Your task to perform on an android device: turn vacation reply on in the gmail app Image 0: 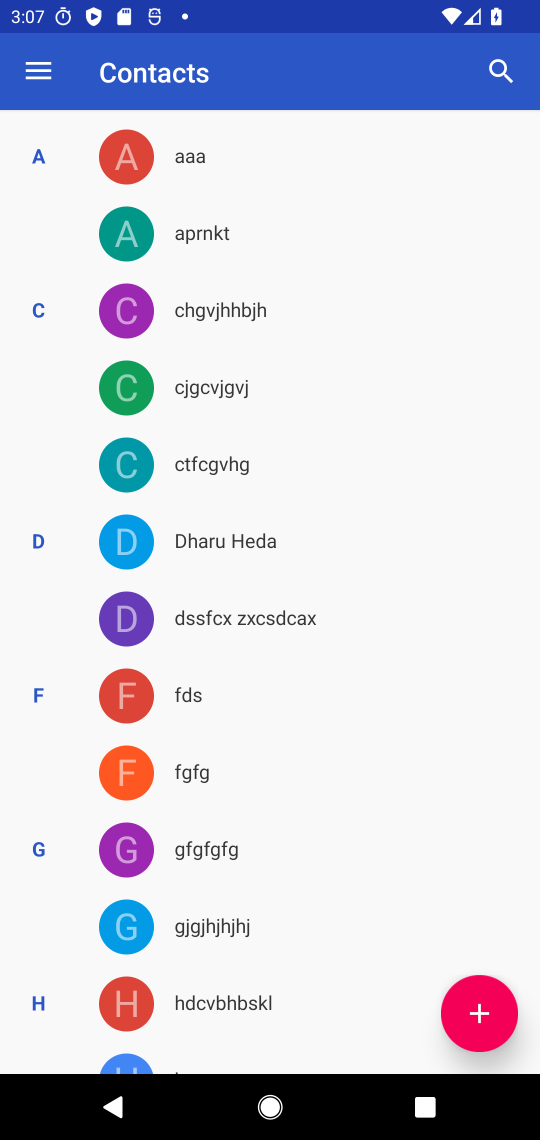
Step 0: press home button
Your task to perform on an android device: turn vacation reply on in the gmail app Image 1: 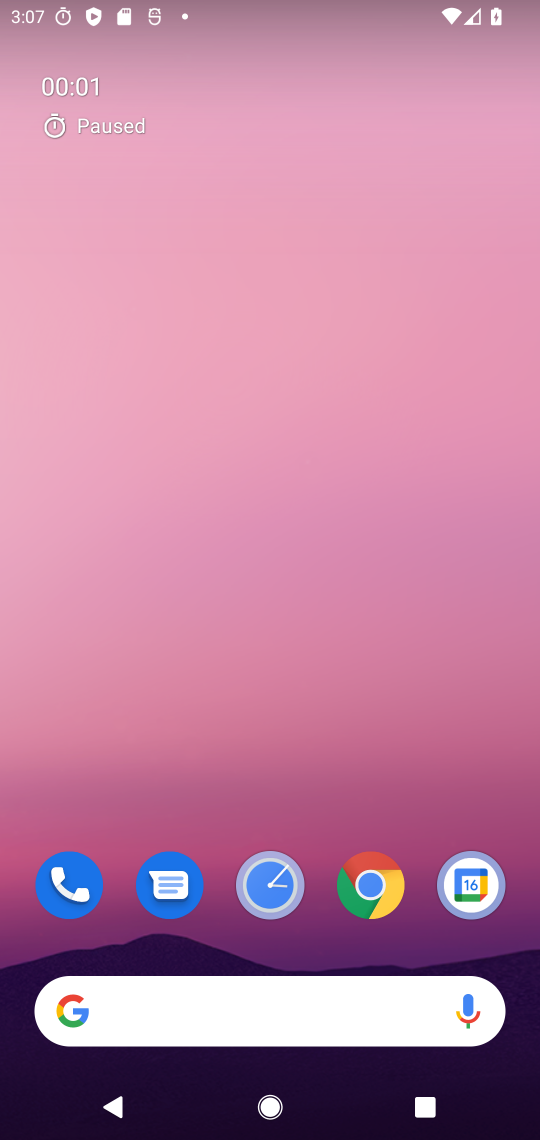
Step 1: drag from (291, 957) to (253, 18)
Your task to perform on an android device: turn vacation reply on in the gmail app Image 2: 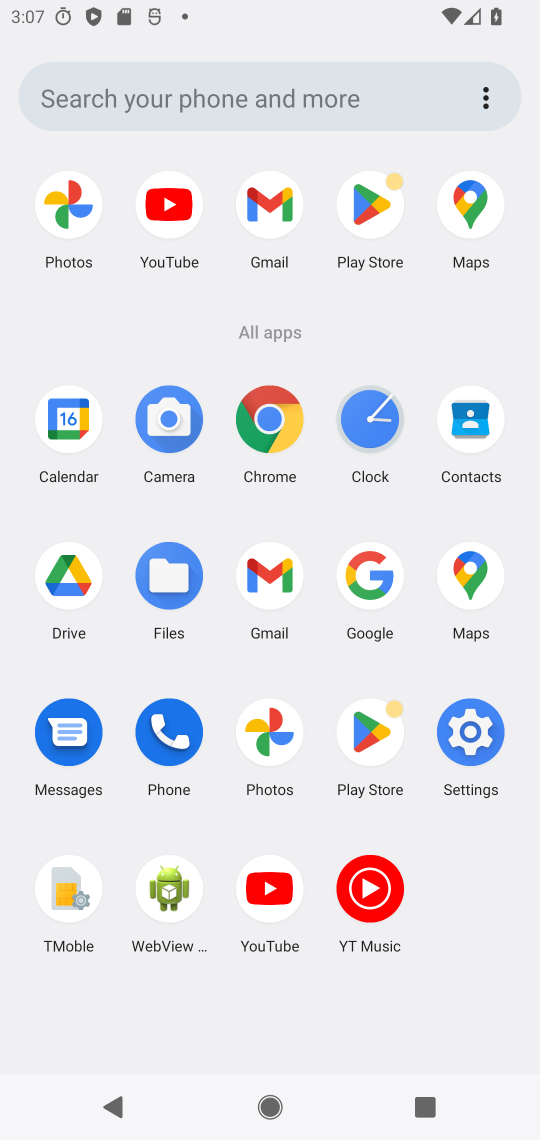
Step 2: click (290, 211)
Your task to perform on an android device: turn vacation reply on in the gmail app Image 3: 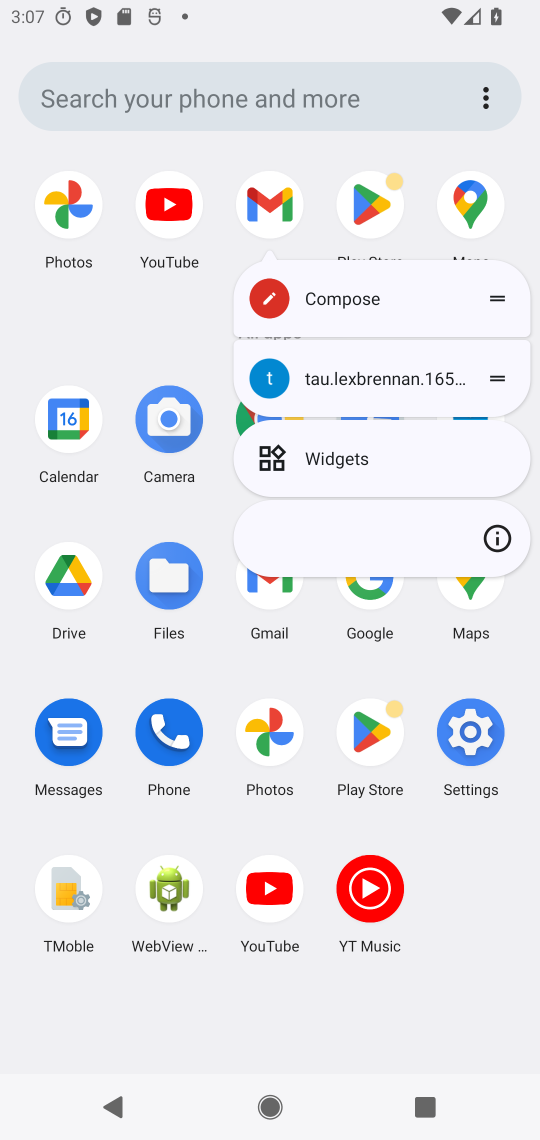
Step 3: click (264, 211)
Your task to perform on an android device: turn vacation reply on in the gmail app Image 4: 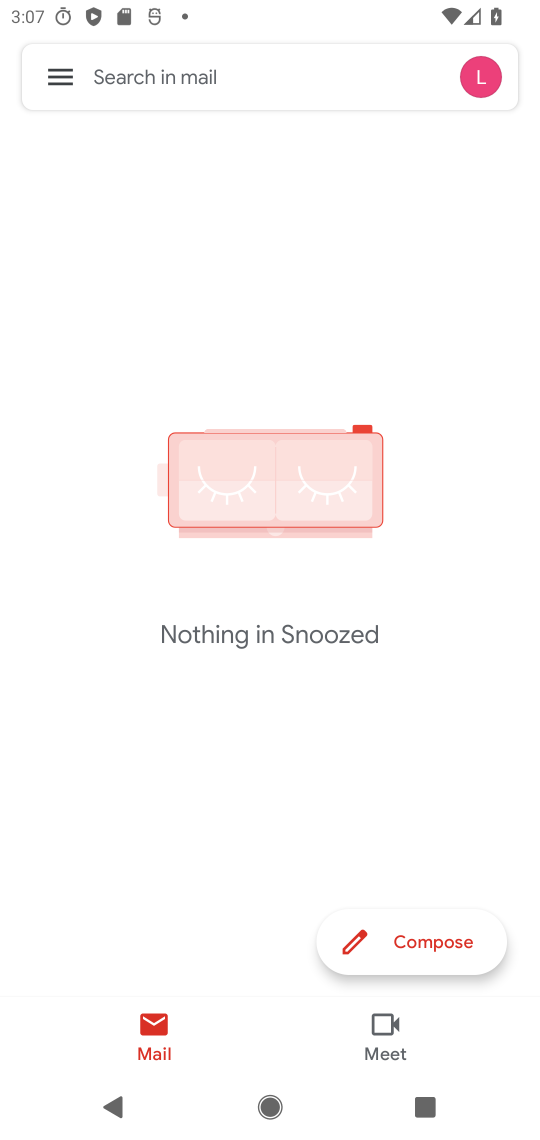
Step 4: click (65, 69)
Your task to perform on an android device: turn vacation reply on in the gmail app Image 5: 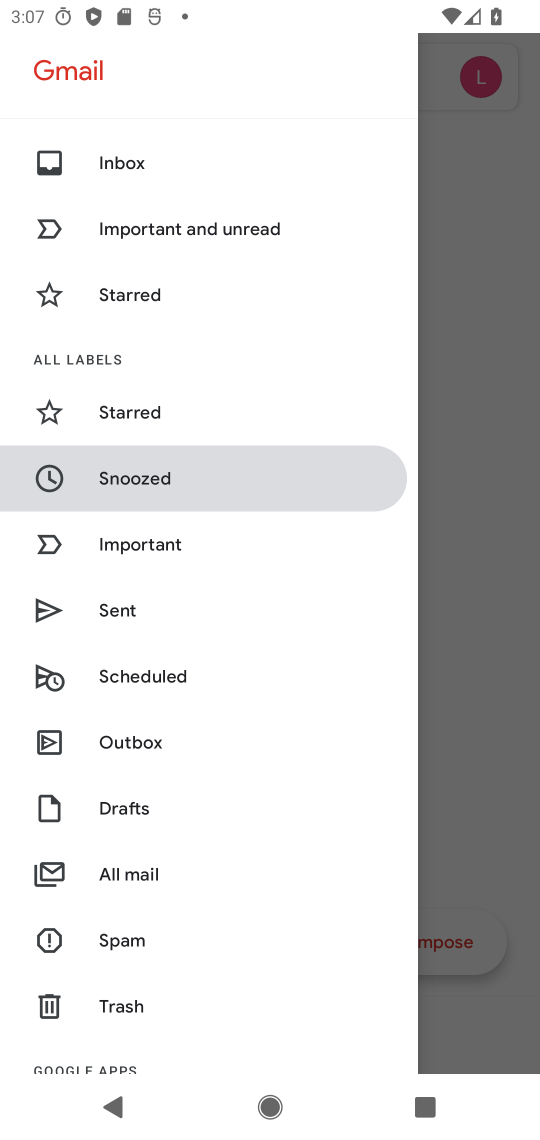
Step 5: drag from (145, 946) to (145, 121)
Your task to perform on an android device: turn vacation reply on in the gmail app Image 6: 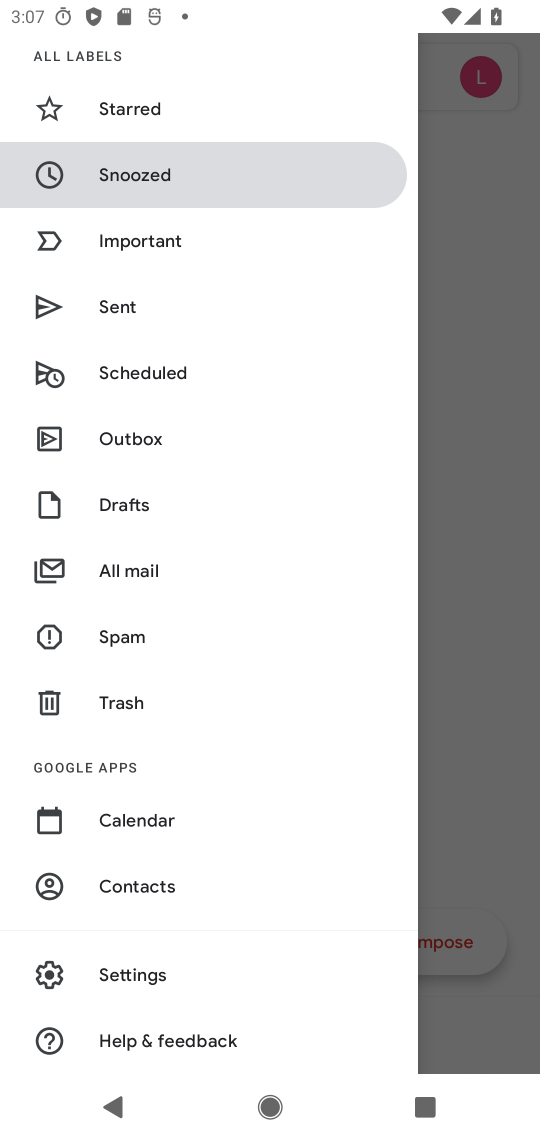
Step 6: click (122, 948)
Your task to perform on an android device: turn vacation reply on in the gmail app Image 7: 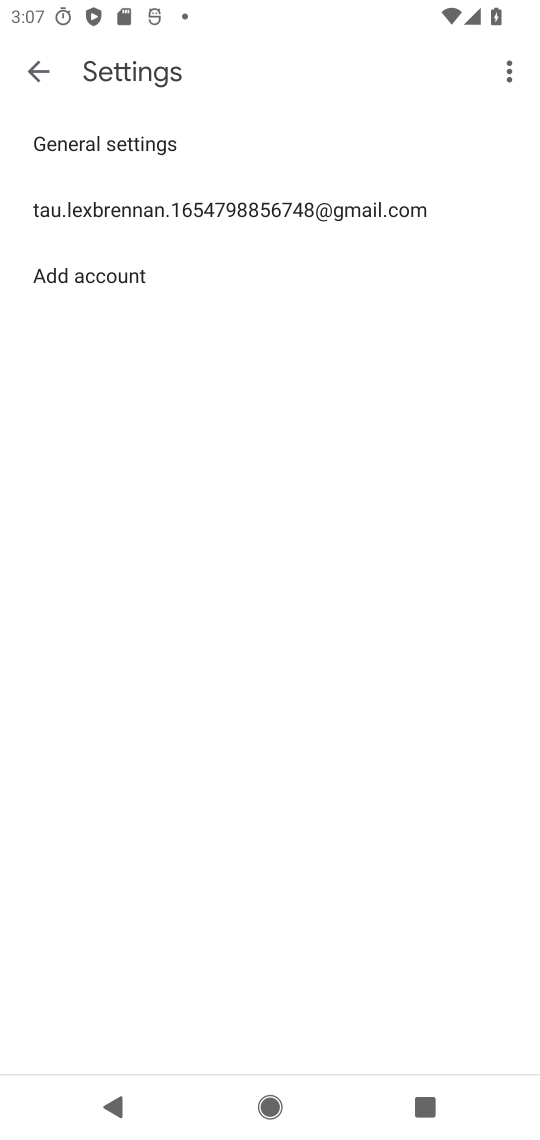
Step 7: click (211, 192)
Your task to perform on an android device: turn vacation reply on in the gmail app Image 8: 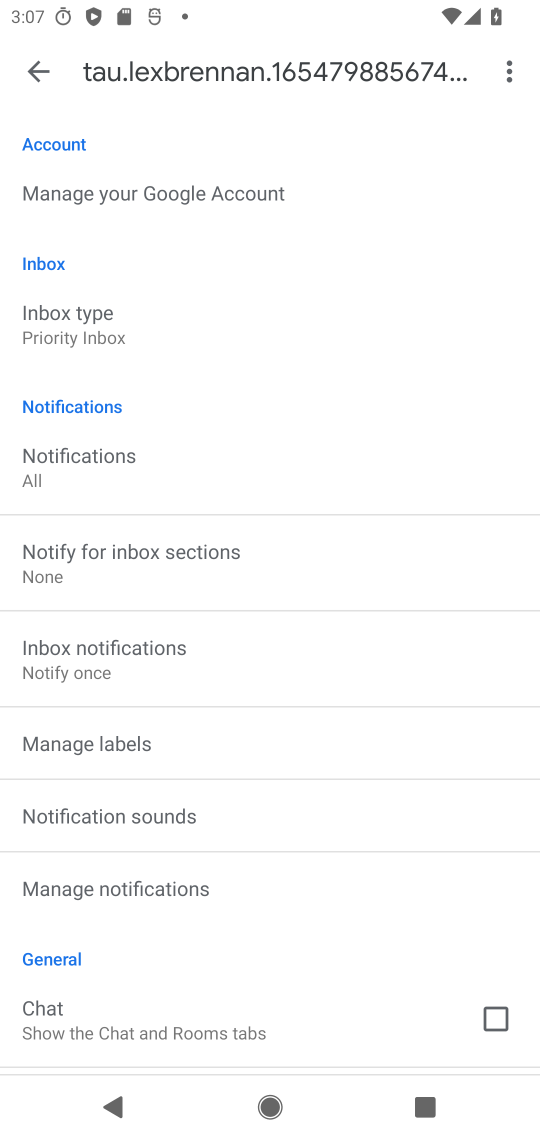
Step 8: drag from (194, 995) to (188, 233)
Your task to perform on an android device: turn vacation reply on in the gmail app Image 9: 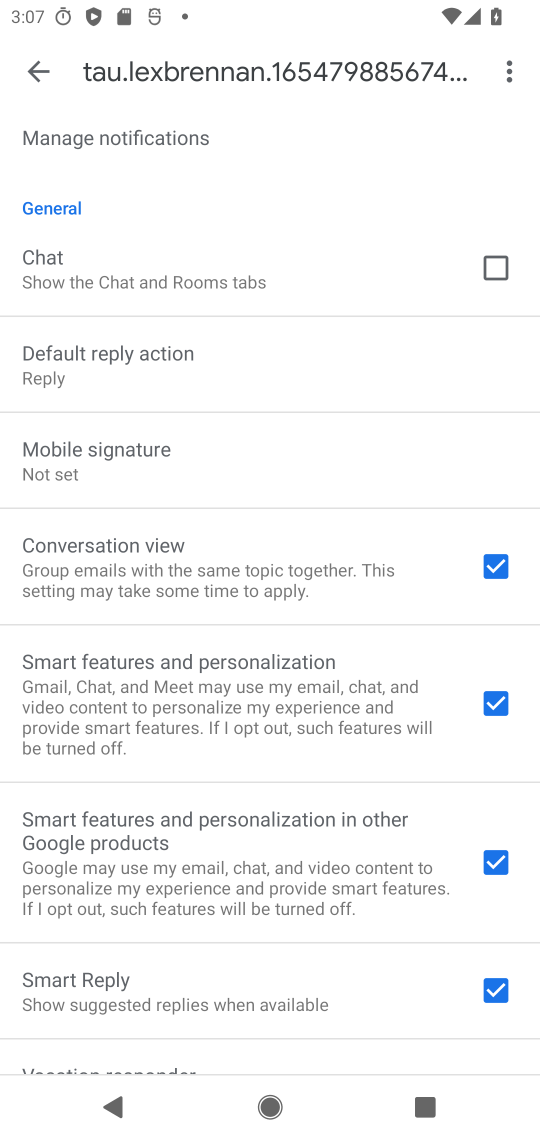
Step 9: drag from (232, 785) to (211, 335)
Your task to perform on an android device: turn vacation reply on in the gmail app Image 10: 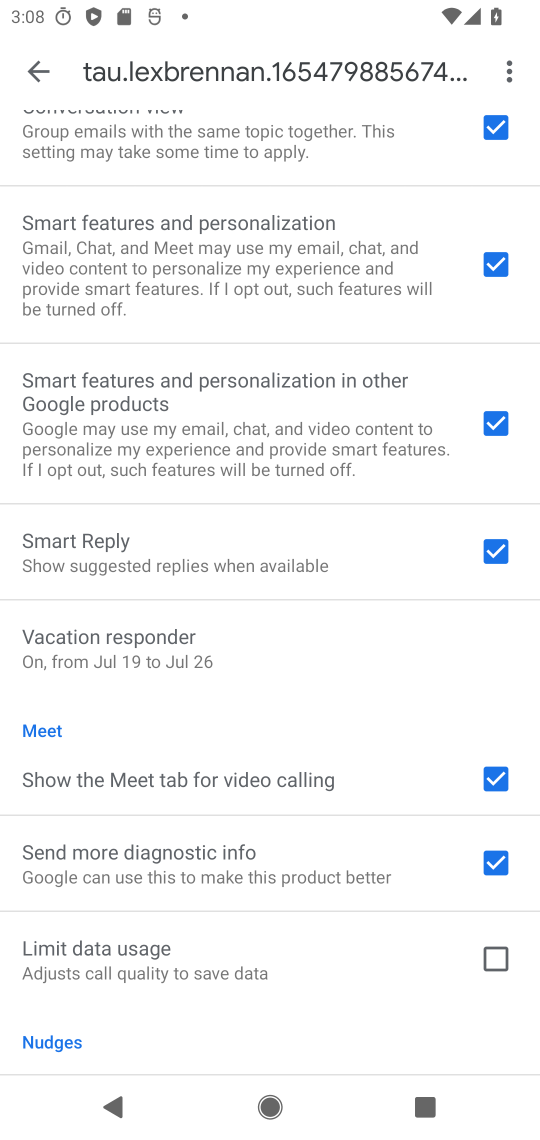
Step 10: click (163, 618)
Your task to perform on an android device: turn vacation reply on in the gmail app Image 11: 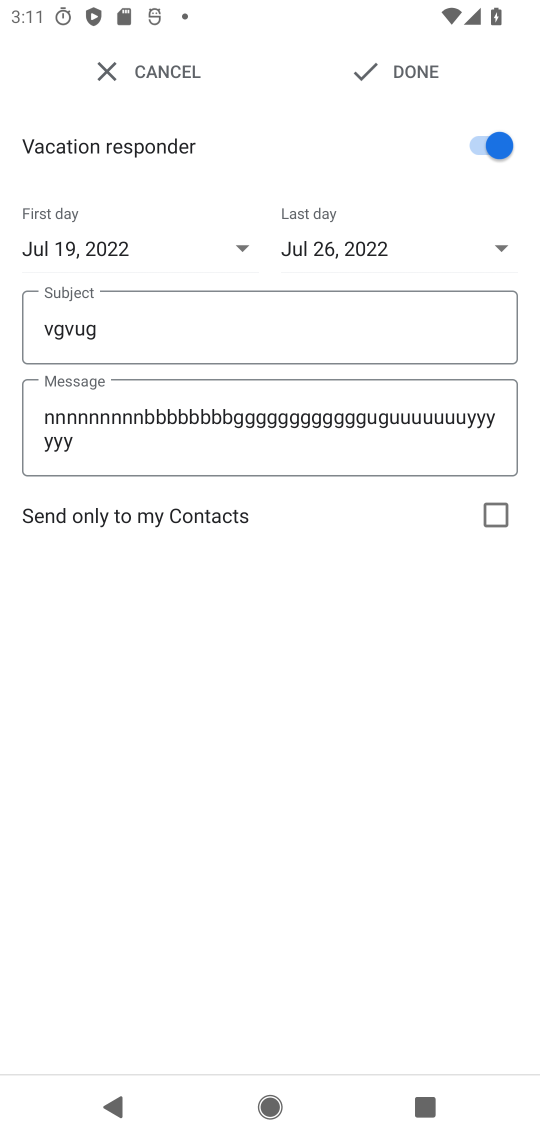
Step 11: task complete